Your task to perform on an android device: turn on location history Image 0: 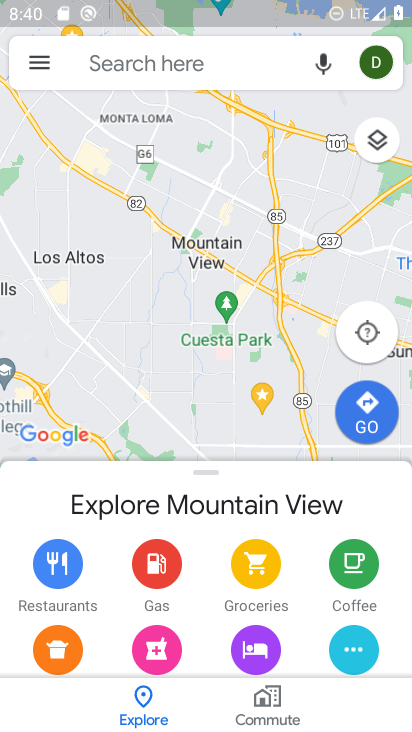
Step 0: press home button
Your task to perform on an android device: turn on location history Image 1: 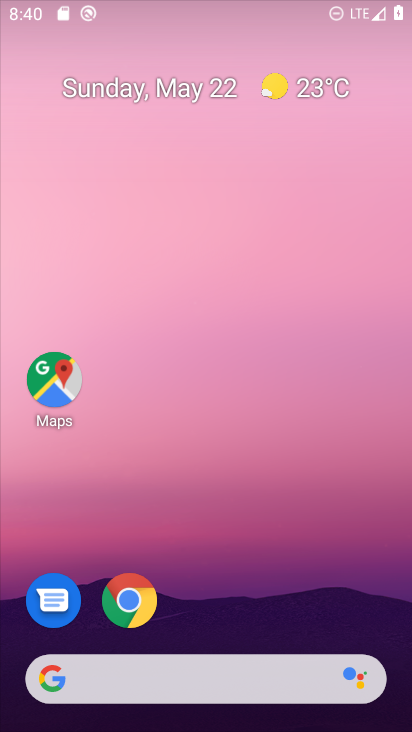
Step 1: drag from (361, 630) to (210, 37)
Your task to perform on an android device: turn on location history Image 2: 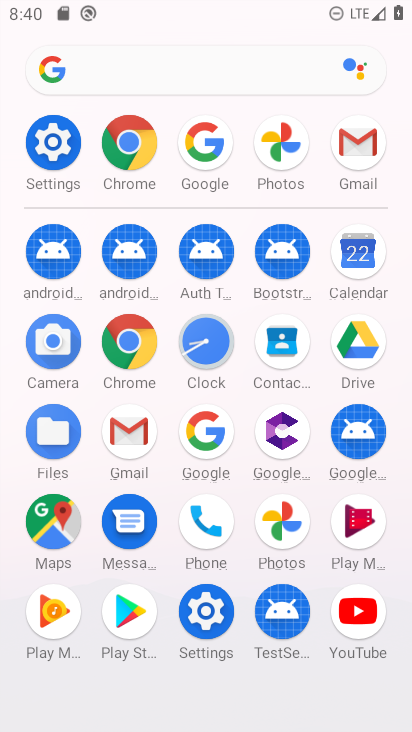
Step 2: click (185, 626)
Your task to perform on an android device: turn on location history Image 3: 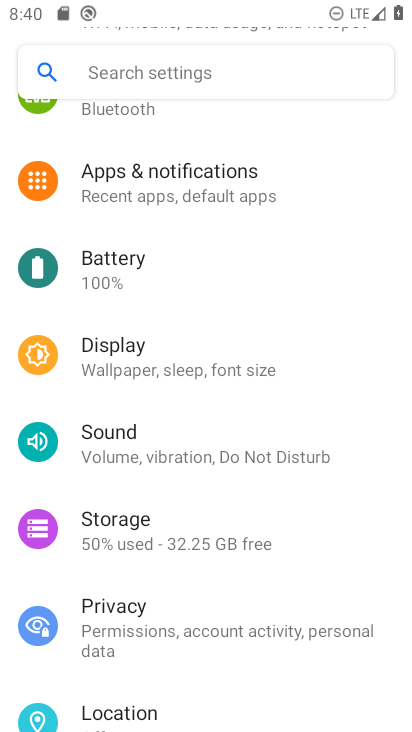
Step 3: click (161, 706)
Your task to perform on an android device: turn on location history Image 4: 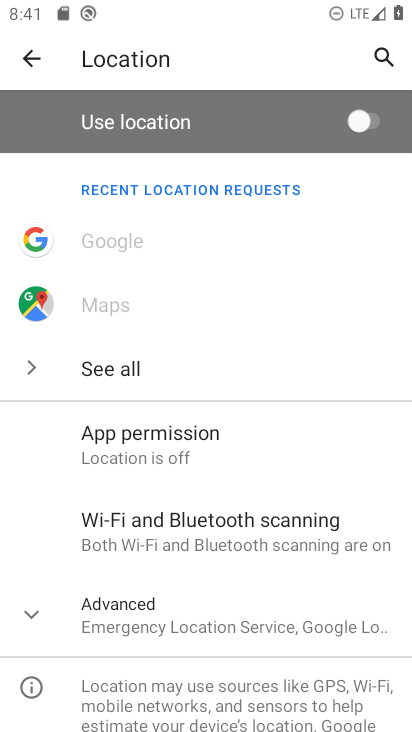
Step 4: click (256, 610)
Your task to perform on an android device: turn on location history Image 5: 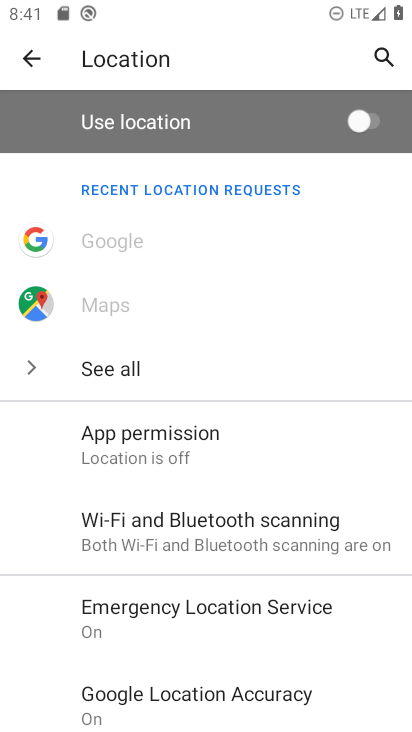
Step 5: drag from (210, 711) to (265, 326)
Your task to perform on an android device: turn on location history Image 6: 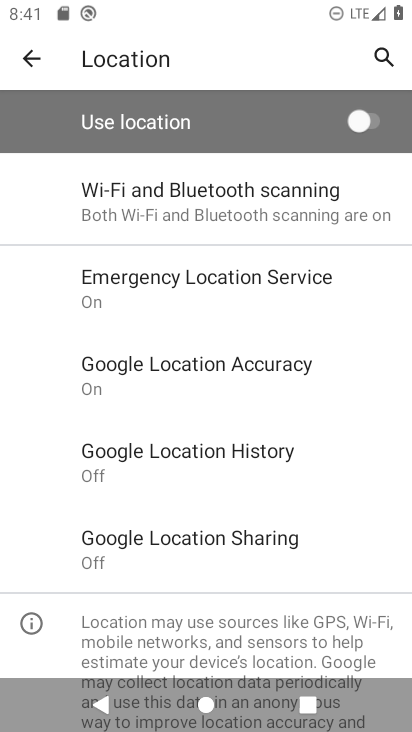
Step 6: click (207, 447)
Your task to perform on an android device: turn on location history Image 7: 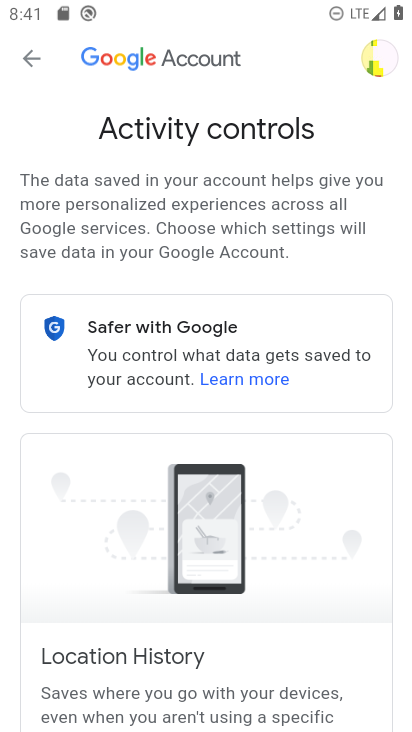
Step 7: task complete